Your task to perform on an android device: delete browsing data in the chrome app Image 0: 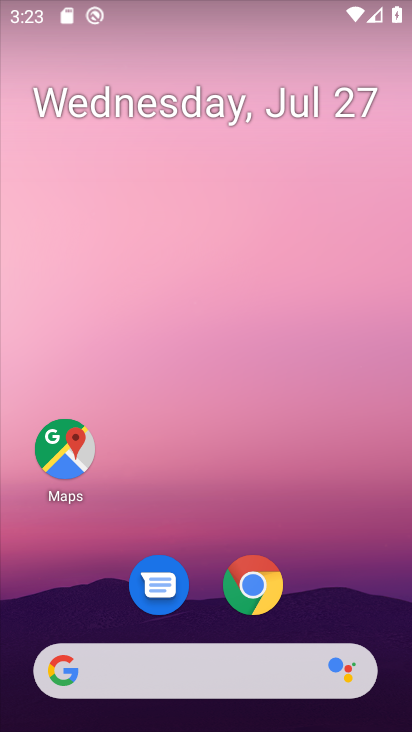
Step 0: click (266, 586)
Your task to perform on an android device: delete browsing data in the chrome app Image 1: 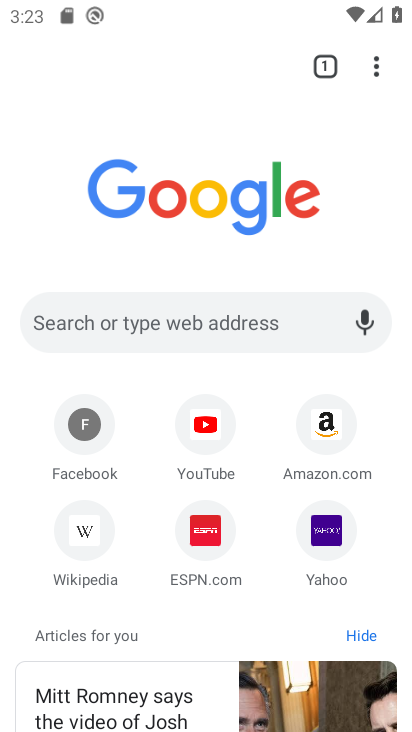
Step 1: click (378, 64)
Your task to perform on an android device: delete browsing data in the chrome app Image 2: 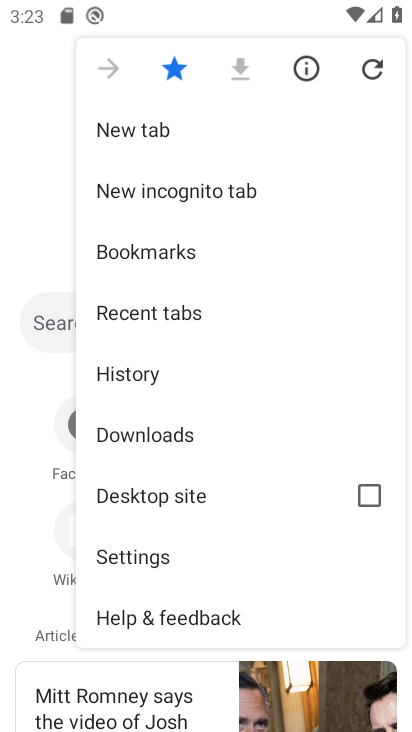
Step 2: click (144, 371)
Your task to perform on an android device: delete browsing data in the chrome app Image 3: 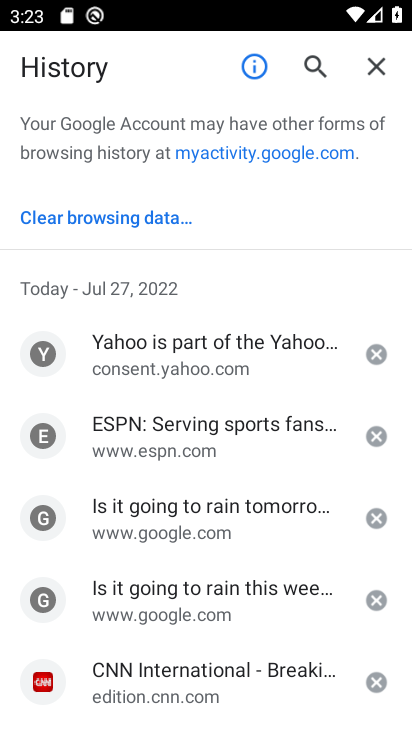
Step 3: click (133, 221)
Your task to perform on an android device: delete browsing data in the chrome app Image 4: 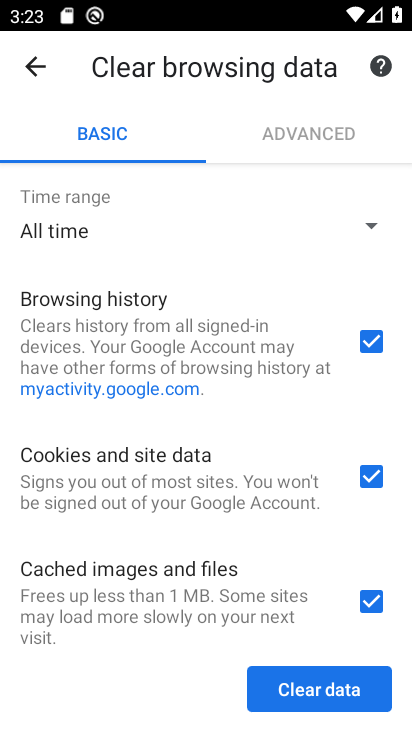
Step 4: click (316, 686)
Your task to perform on an android device: delete browsing data in the chrome app Image 5: 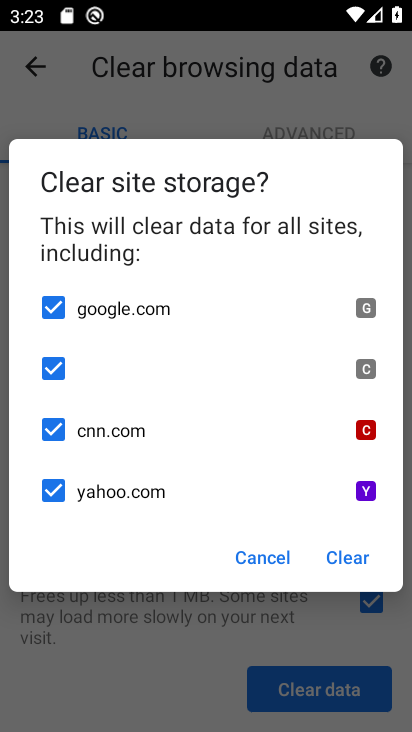
Step 5: click (364, 552)
Your task to perform on an android device: delete browsing data in the chrome app Image 6: 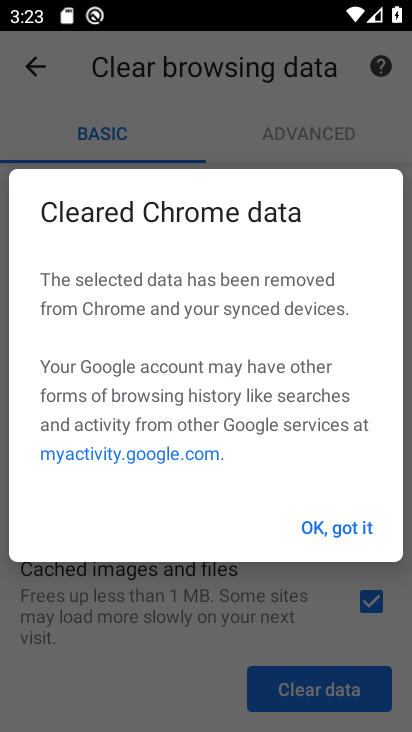
Step 6: click (358, 522)
Your task to perform on an android device: delete browsing data in the chrome app Image 7: 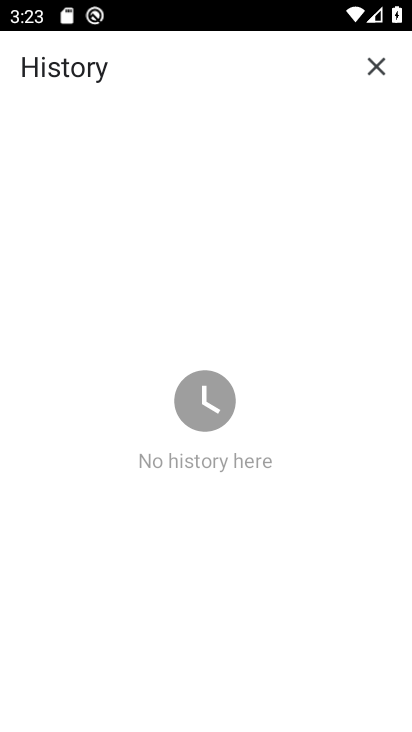
Step 7: task complete